Your task to perform on an android device: toggle location history Image 0: 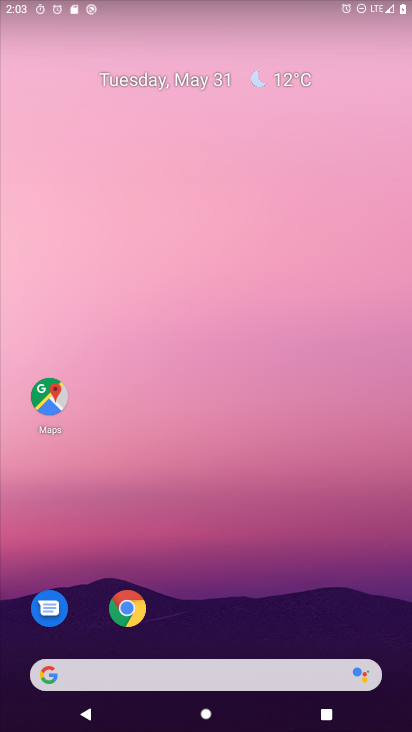
Step 0: click (42, 395)
Your task to perform on an android device: toggle location history Image 1: 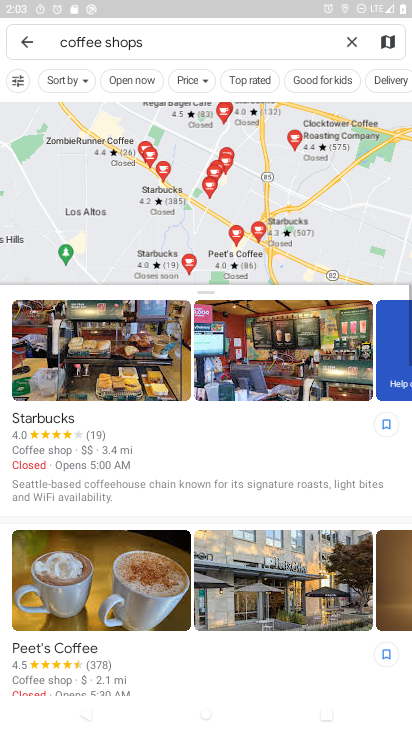
Step 1: click (355, 44)
Your task to perform on an android device: toggle location history Image 2: 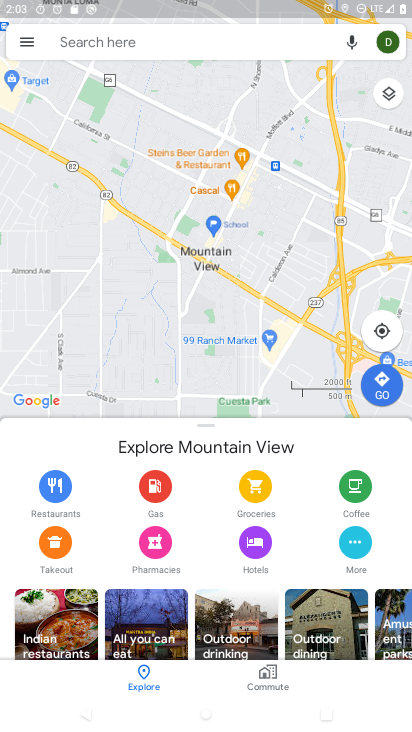
Step 2: click (26, 42)
Your task to perform on an android device: toggle location history Image 3: 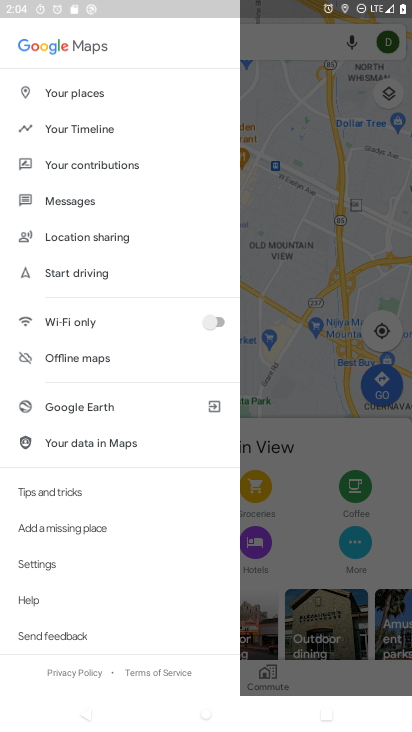
Step 3: click (65, 135)
Your task to perform on an android device: toggle location history Image 4: 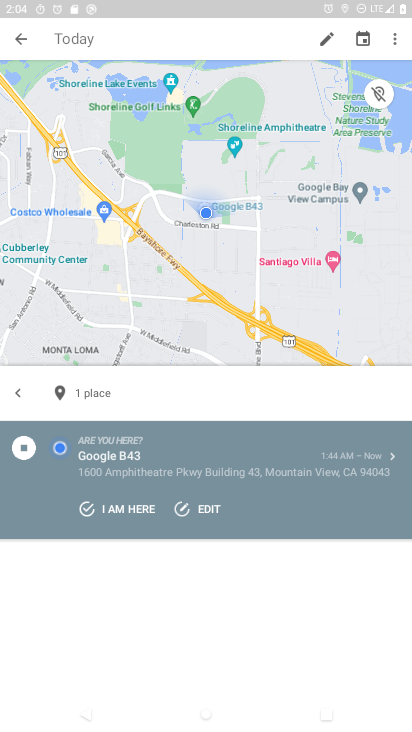
Step 4: click (393, 40)
Your task to perform on an android device: toggle location history Image 5: 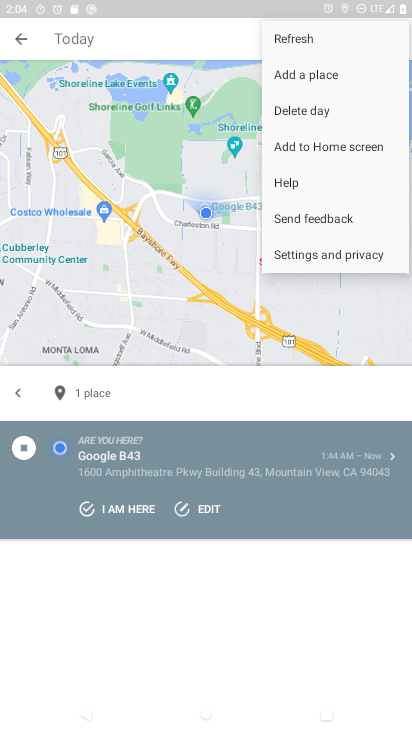
Step 5: click (327, 254)
Your task to perform on an android device: toggle location history Image 6: 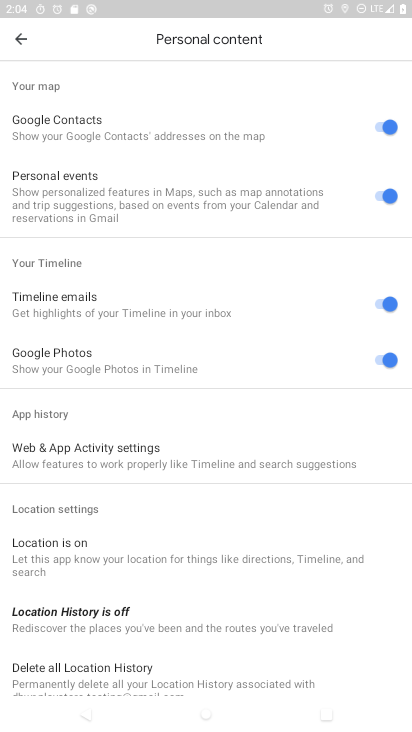
Step 6: click (117, 620)
Your task to perform on an android device: toggle location history Image 7: 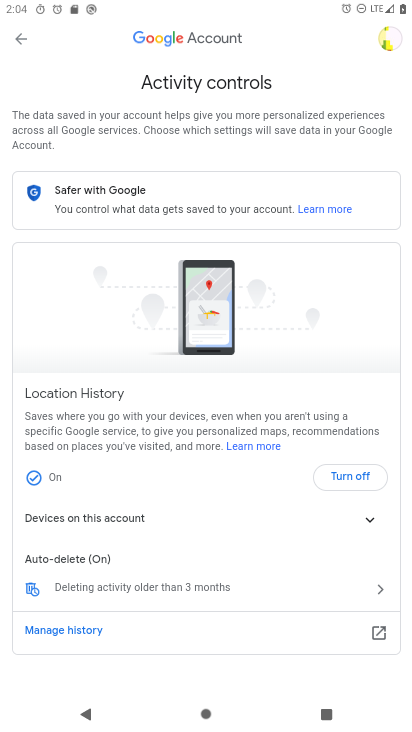
Step 7: click (349, 478)
Your task to perform on an android device: toggle location history Image 8: 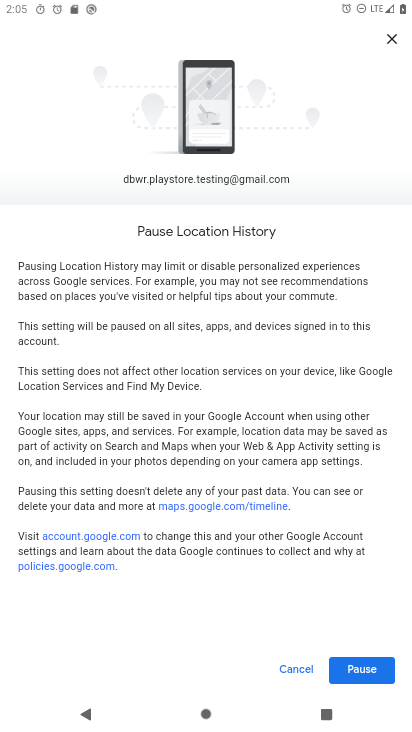
Step 8: click (358, 671)
Your task to perform on an android device: toggle location history Image 9: 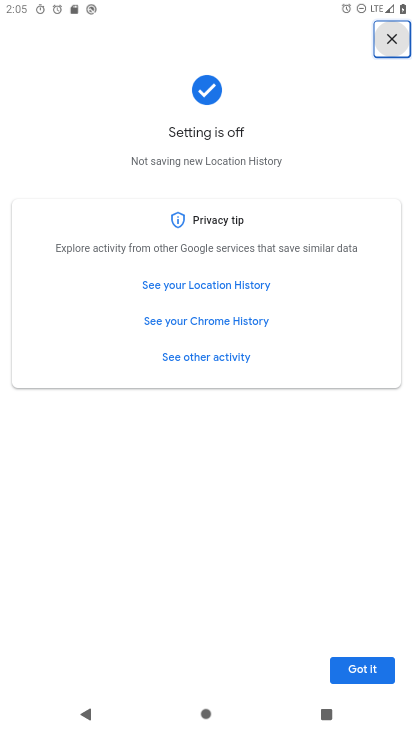
Step 9: click (358, 672)
Your task to perform on an android device: toggle location history Image 10: 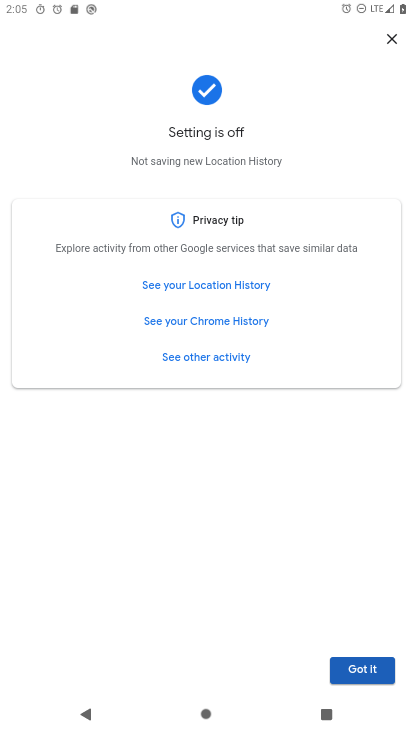
Step 10: click (358, 672)
Your task to perform on an android device: toggle location history Image 11: 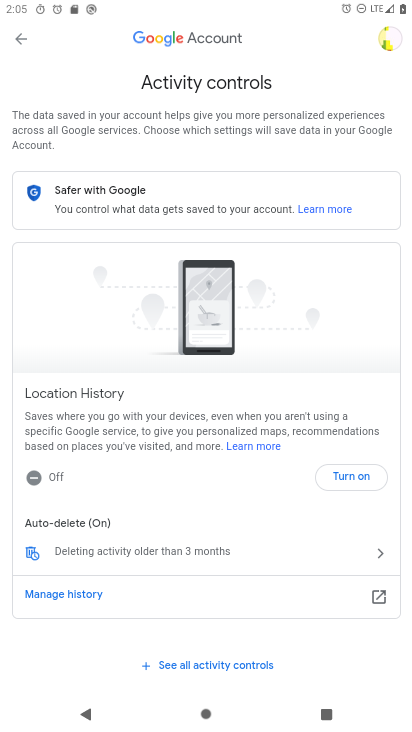
Step 11: task complete